Your task to perform on an android device: turn off translation in the chrome app Image 0: 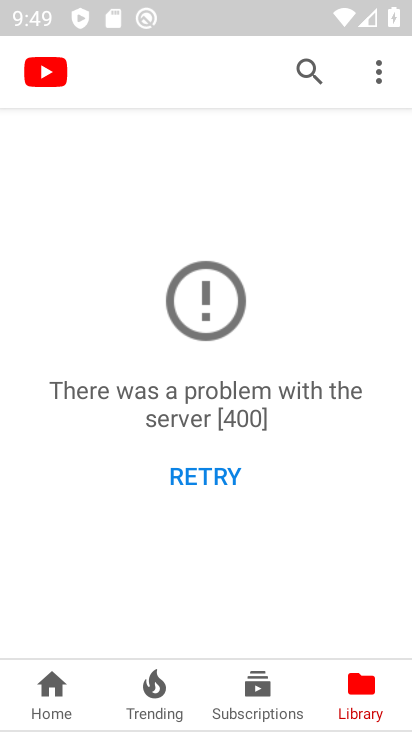
Step 0: task complete